Your task to perform on an android device: toggle show notifications on the lock screen Image 0: 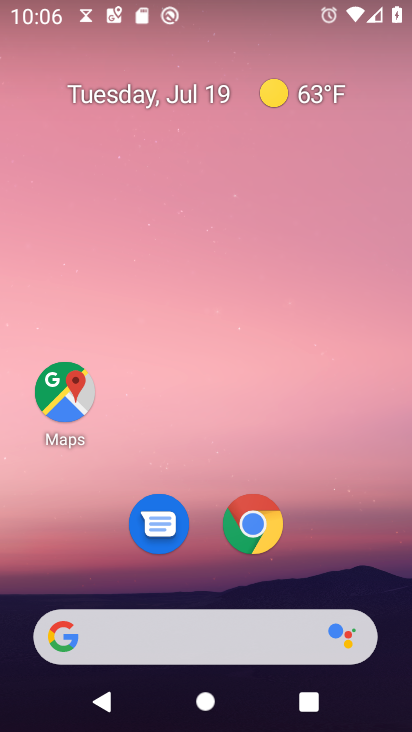
Step 0: press home button
Your task to perform on an android device: toggle show notifications on the lock screen Image 1: 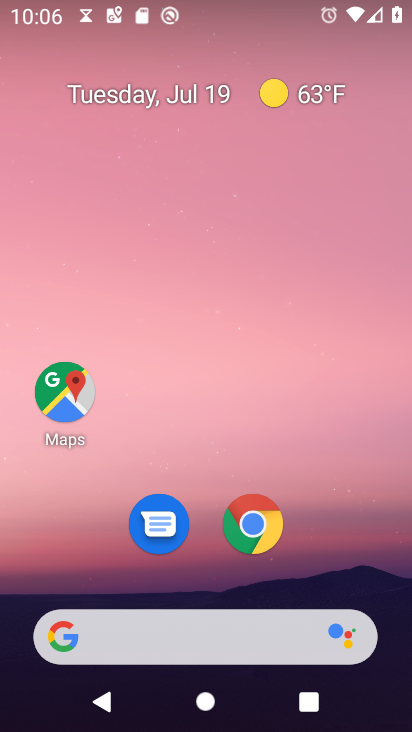
Step 1: drag from (218, 640) to (291, 93)
Your task to perform on an android device: toggle show notifications on the lock screen Image 2: 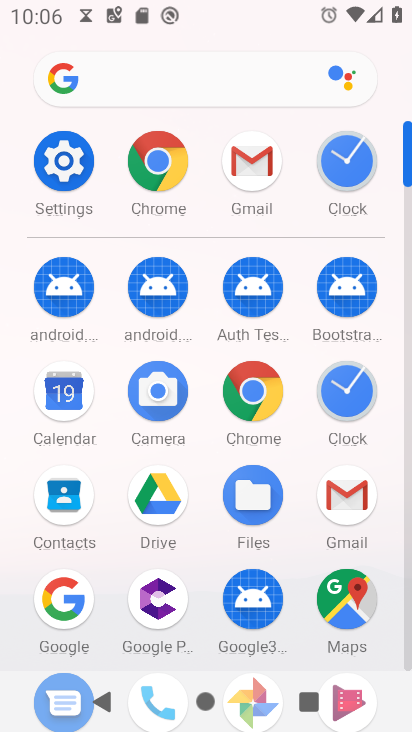
Step 2: click (61, 166)
Your task to perform on an android device: toggle show notifications on the lock screen Image 3: 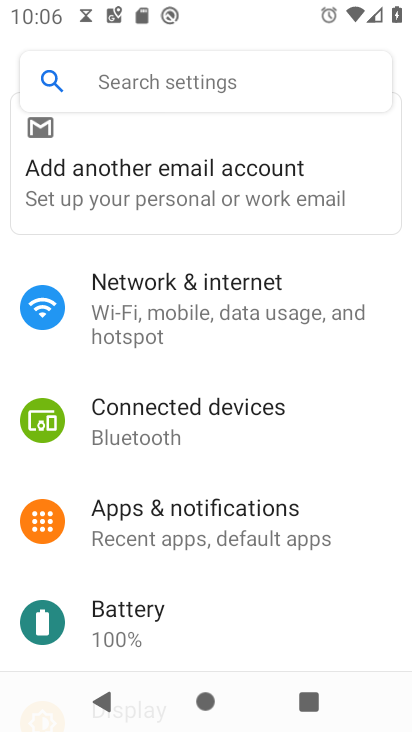
Step 3: click (226, 528)
Your task to perform on an android device: toggle show notifications on the lock screen Image 4: 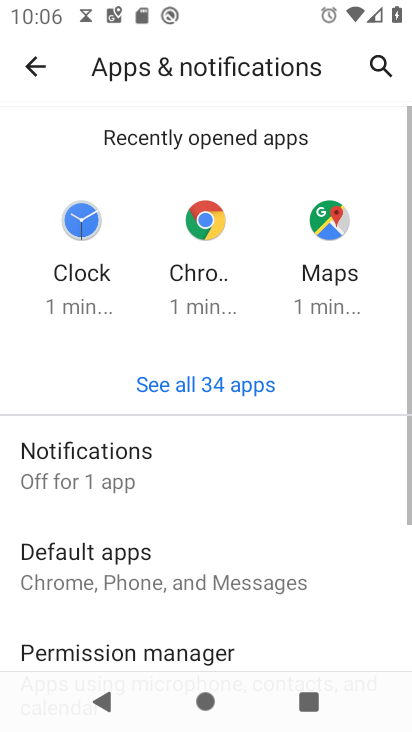
Step 4: drag from (223, 578) to (289, 448)
Your task to perform on an android device: toggle show notifications on the lock screen Image 5: 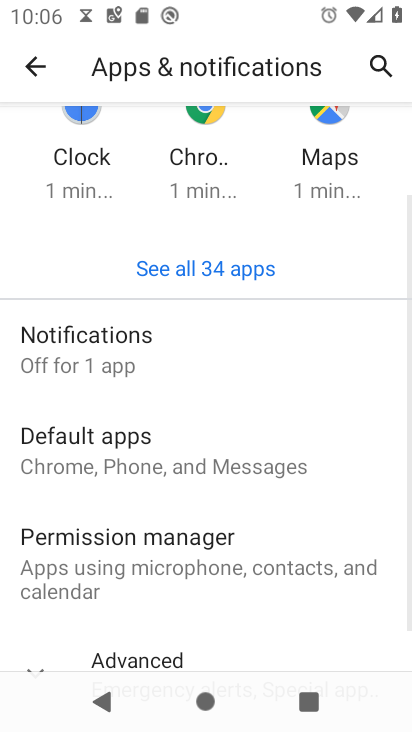
Step 5: click (122, 365)
Your task to perform on an android device: toggle show notifications on the lock screen Image 6: 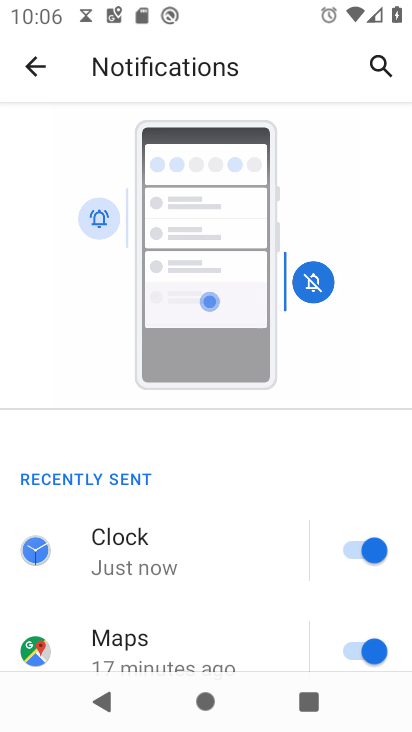
Step 6: drag from (219, 599) to (328, 95)
Your task to perform on an android device: toggle show notifications on the lock screen Image 7: 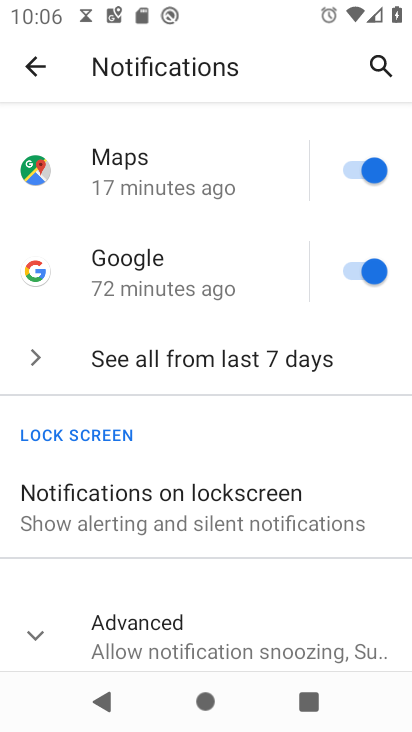
Step 7: click (205, 516)
Your task to perform on an android device: toggle show notifications on the lock screen Image 8: 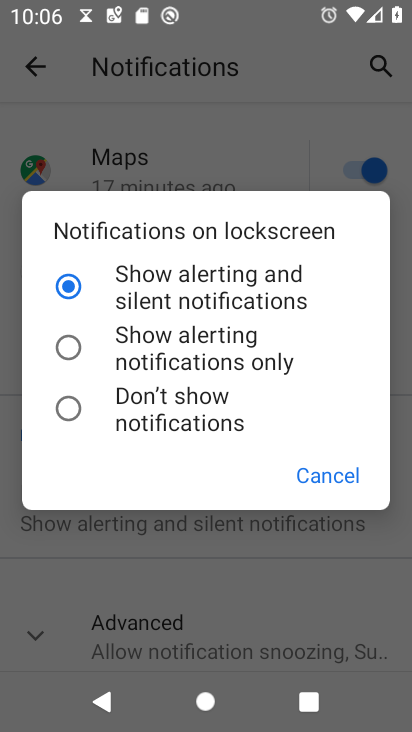
Step 8: click (69, 406)
Your task to perform on an android device: toggle show notifications on the lock screen Image 9: 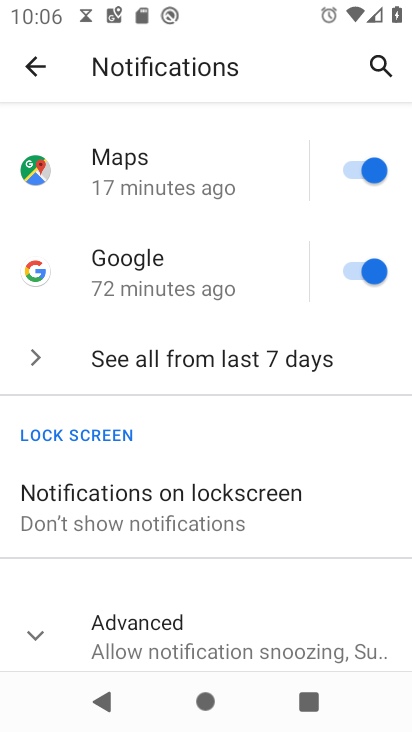
Step 9: task complete